Your task to perform on an android device: Toggle the flashlight Image 0: 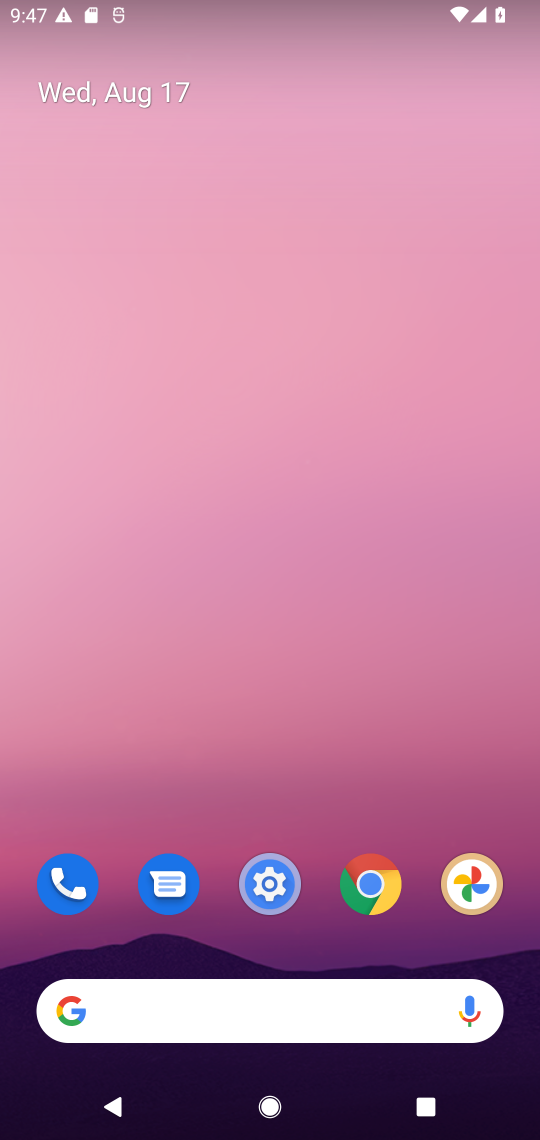
Step 0: click (271, 893)
Your task to perform on an android device: Toggle the flashlight Image 1: 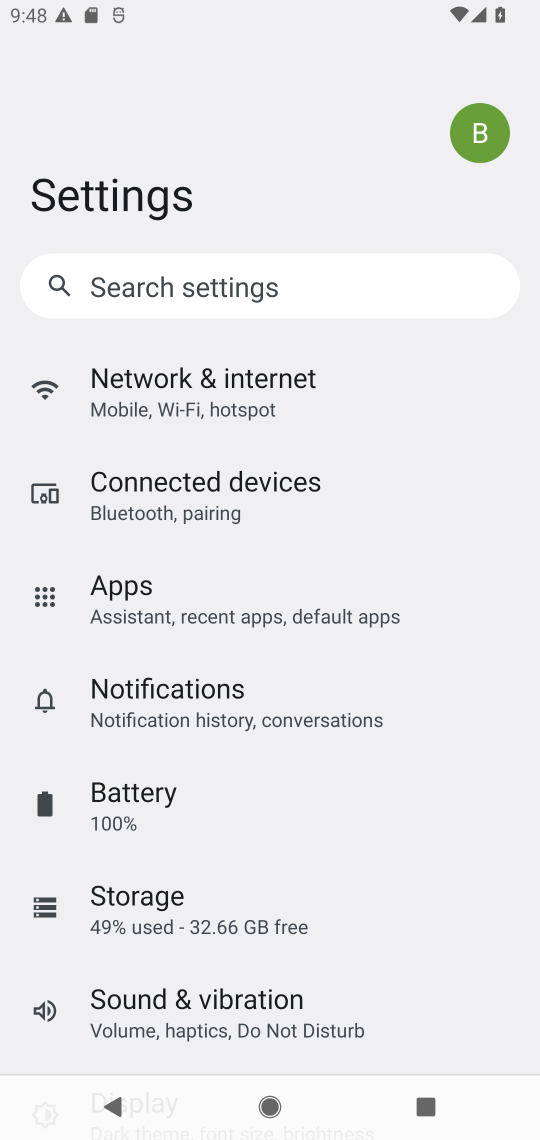
Step 1: task complete